Your task to perform on an android device: toggle airplane mode Image 0: 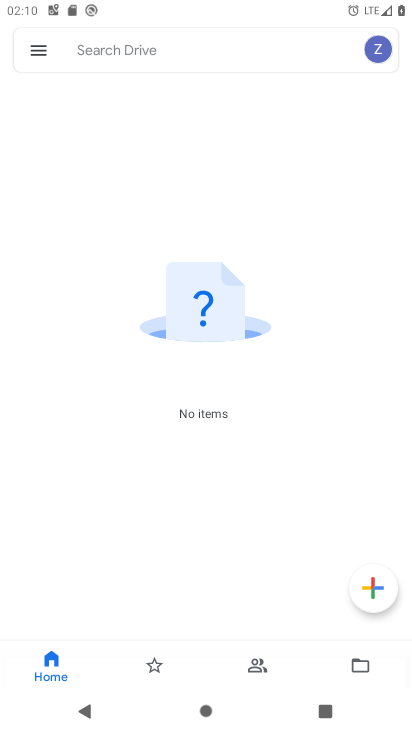
Step 0: press home button
Your task to perform on an android device: toggle airplane mode Image 1: 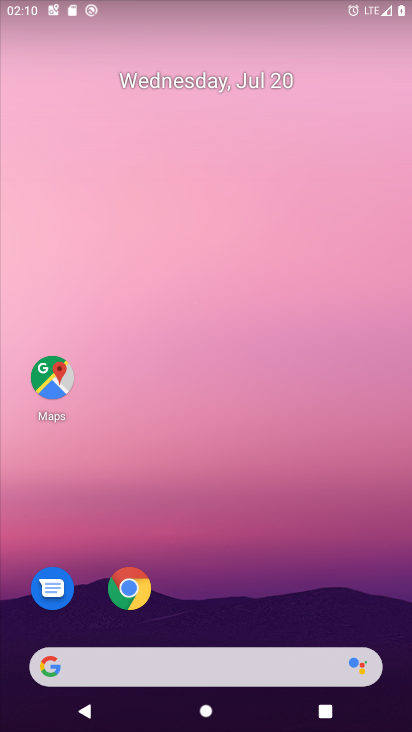
Step 1: drag from (194, 642) to (258, 11)
Your task to perform on an android device: toggle airplane mode Image 2: 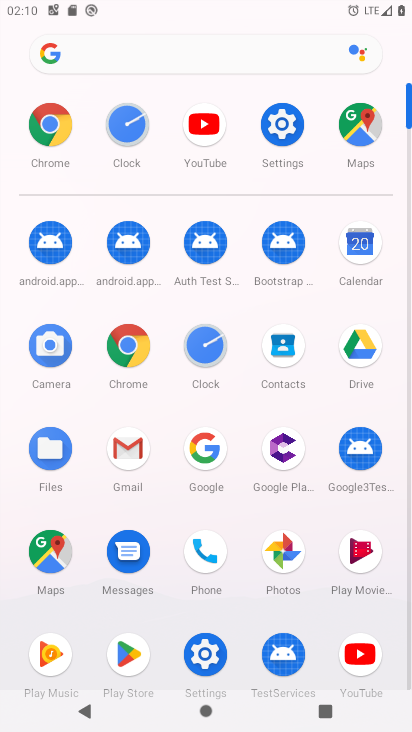
Step 2: click (273, 121)
Your task to perform on an android device: toggle airplane mode Image 3: 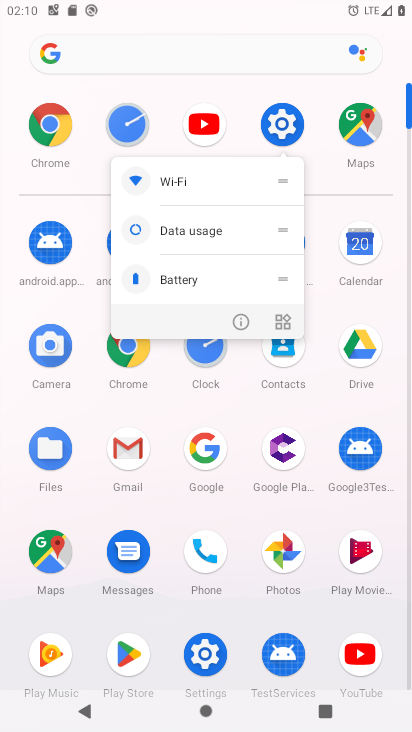
Step 3: click (283, 118)
Your task to perform on an android device: toggle airplane mode Image 4: 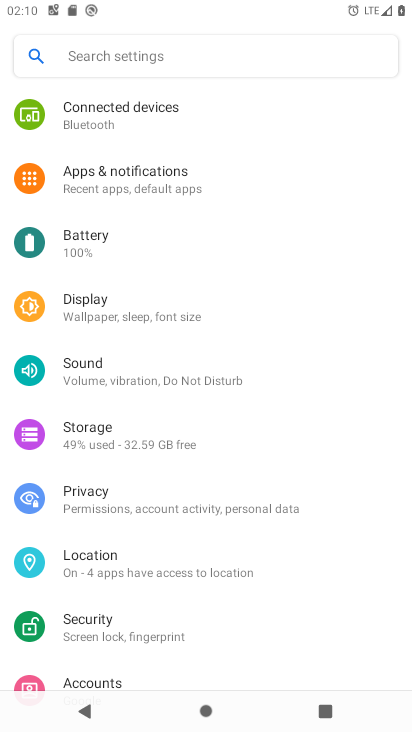
Step 4: drag from (118, 112) to (138, 523)
Your task to perform on an android device: toggle airplane mode Image 5: 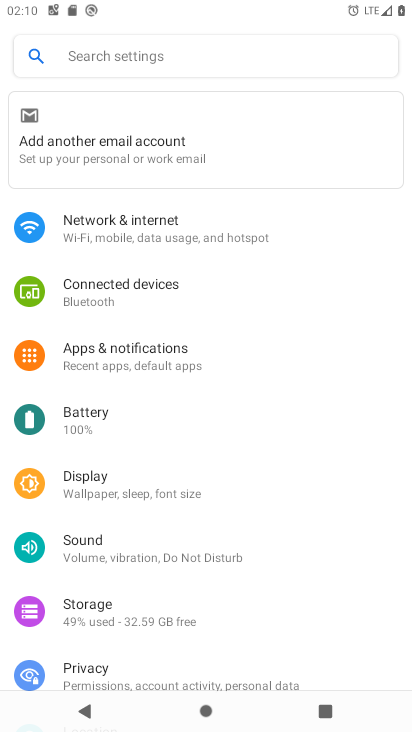
Step 5: click (154, 210)
Your task to perform on an android device: toggle airplane mode Image 6: 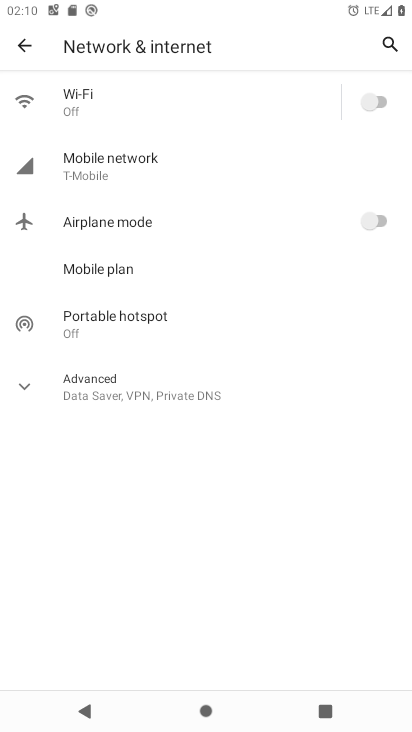
Step 6: click (366, 223)
Your task to perform on an android device: toggle airplane mode Image 7: 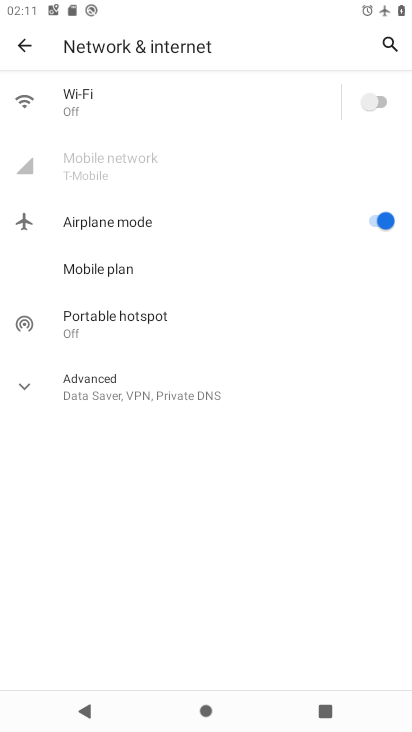
Step 7: task complete